Your task to perform on an android device: change timer sound Image 0: 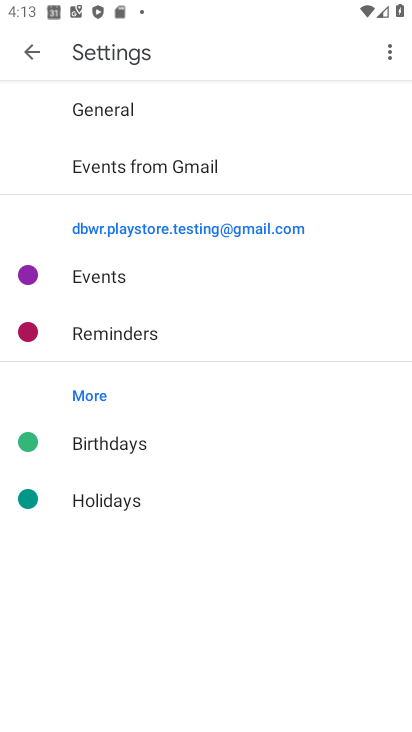
Step 0: click (35, 50)
Your task to perform on an android device: change timer sound Image 1: 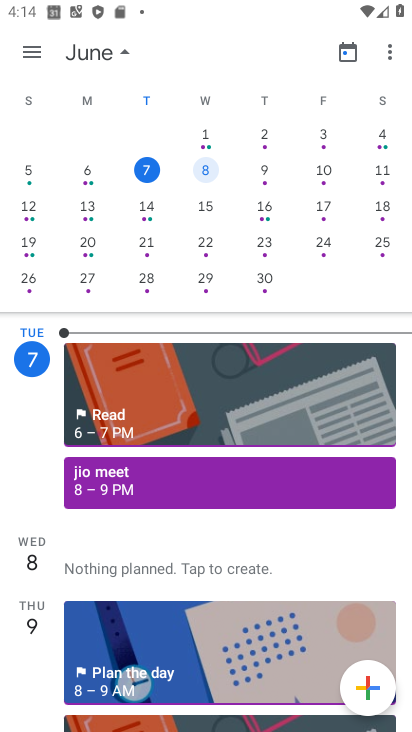
Step 1: press back button
Your task to perform on an android device: change timer sound Image 2: 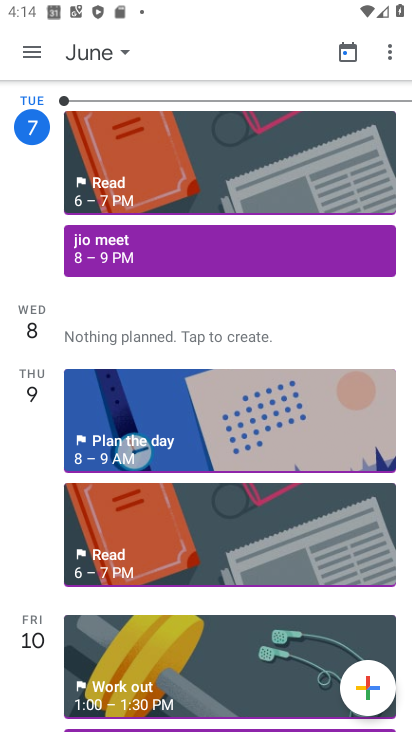
Step 2: press home button
Your task to perform on an android device: change timer sound Image 3: 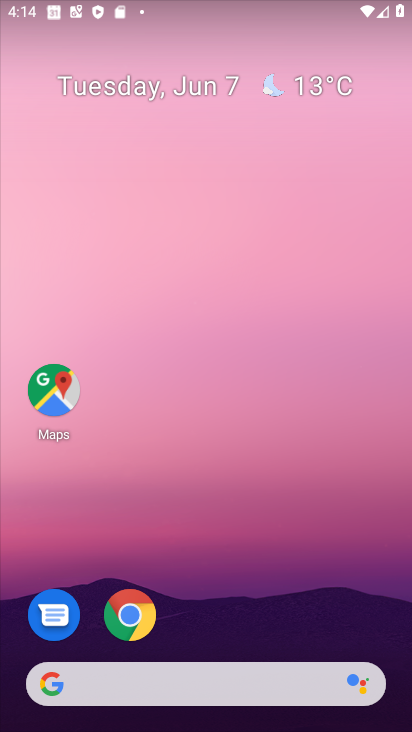
Step 3: drag from (149, 133) to (137, 95)
Your task to perform on an android device: change timer sound Image 4: 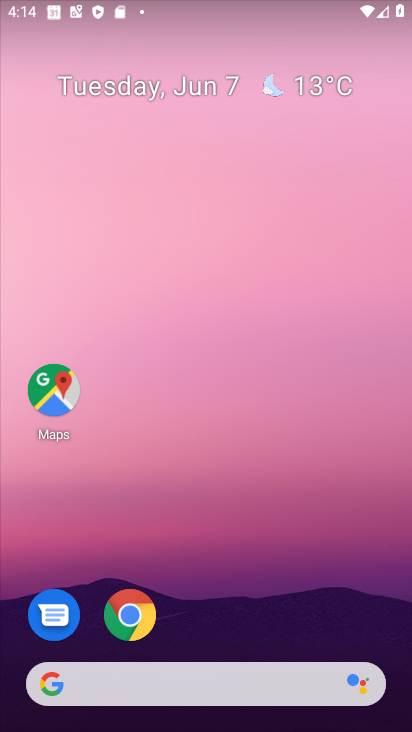
Step 4: drag from (243, 657) to (156, 96)
Your task to perform on an android device: change timer sound Image 5: 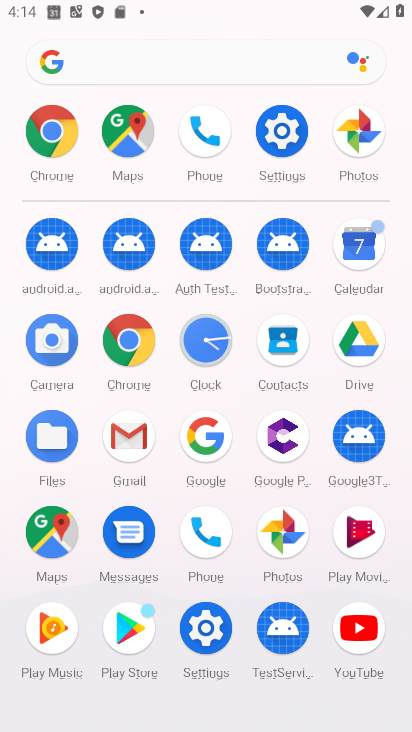
Step 5: click (205, 342)
Your task to perform on an android device: change timer sound Image 6: 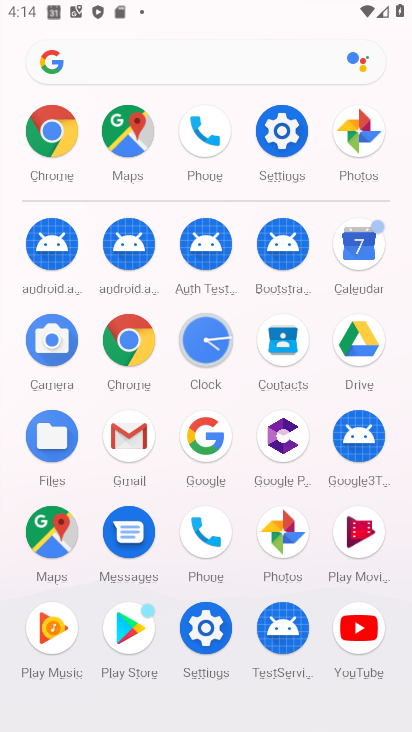
Step 6: click (205, 342)
Your task to perform on an android device: change timer sound Image 7: 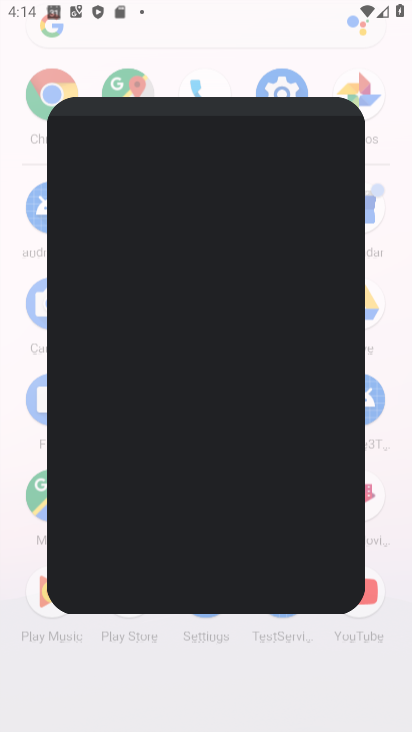
Step 7: click (209, 354)
Your task to perform on an android device: change timer sound Image 8: 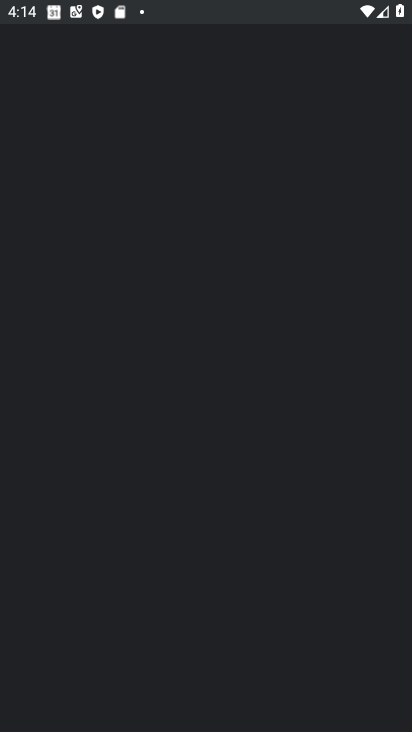
Step 8: click (209, 354)
Your task to perform on an android device: change timer sound Image 9: 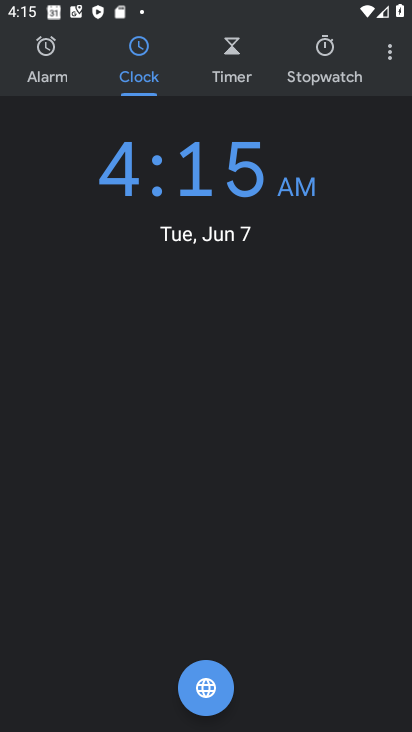
Step 9: click (227, 52)
Your task to perform on an android device: change timer sound Image 10: 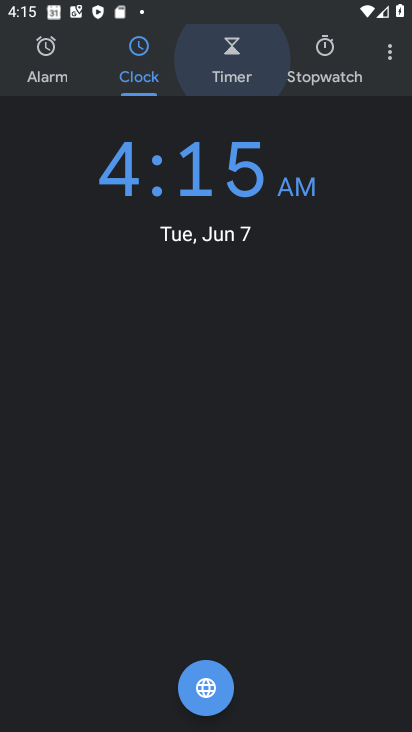
Step 10: click (227, 52)
Your task to perform on an android device: change timer sound Image 11: 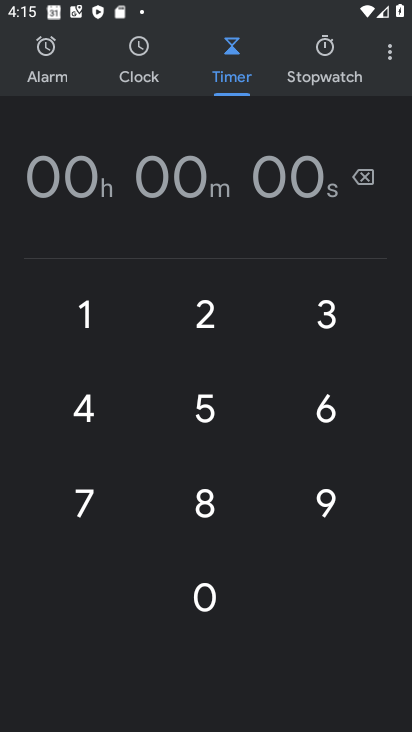
Step 11: click (203, 517)
Your task to perform on an android device: change timer sound Image 12: 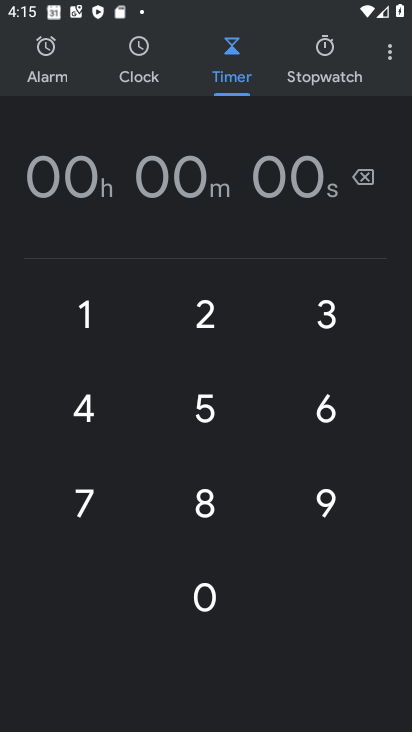
Step 12: click (203, 517)
Your task to perform on an android device: change timer sound Image 13: 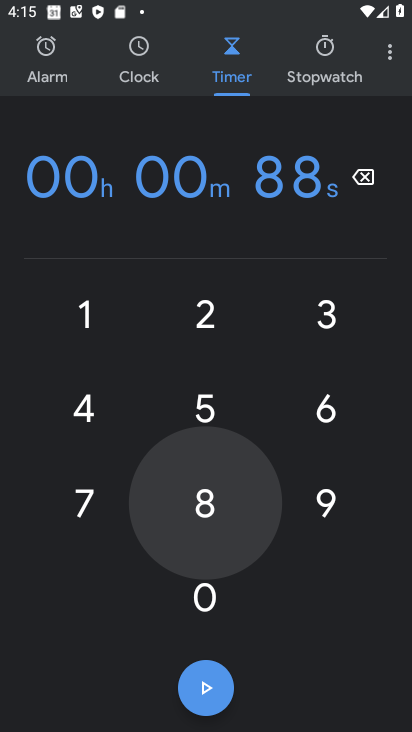
Step 13: click (203, 514)
Your task to perform on an android device: change timer sound Image 14: 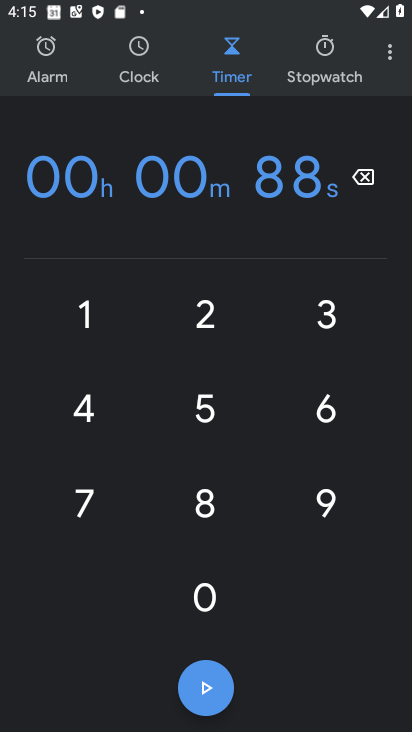
Step 14: click (205, 513)
Your task to perform on an android device: change timer sound Image 15: 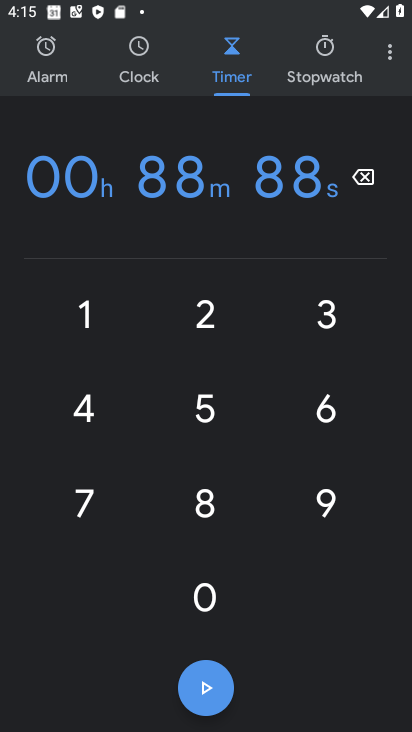
Step 15: click (208, 506)
Your task to perform on an android device: change timer sound Image 16: 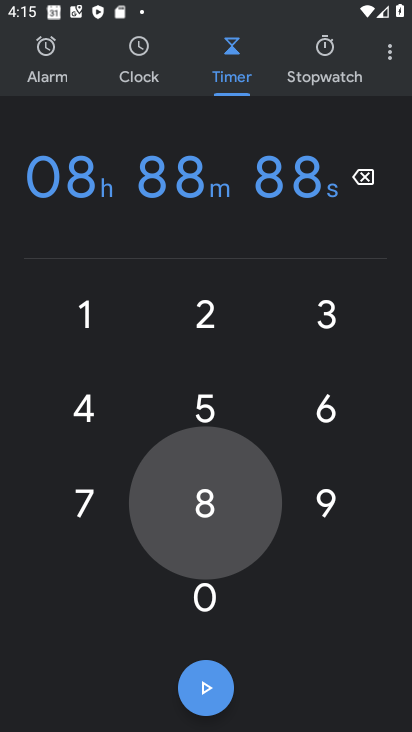
Step 16: click (207, 506)
Your task to perform on an android device: change timer sound Image 17: 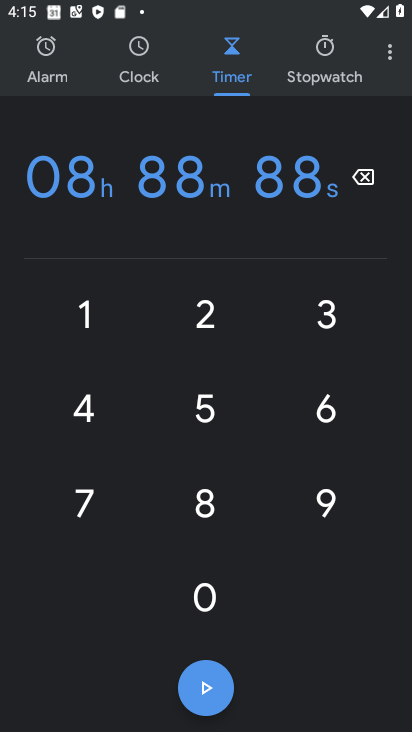
Step 17: click (207, 506)
Your task to perform on an android device: change timer sound Image 18: 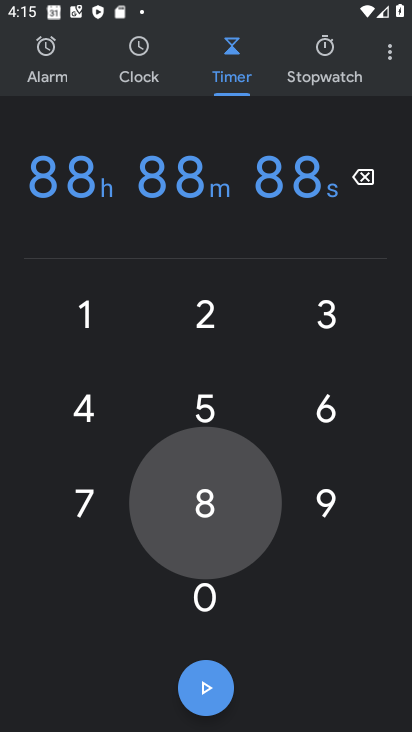
Step 18: click (207, 506)
Your task to perform on an android device: change timer sound Image 19: 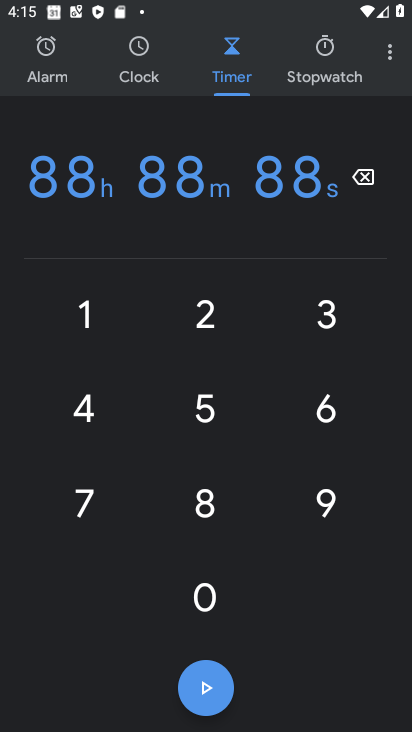
Step 19: click (208, 500)
Your task to perform on an android device: change timer sound Image 20: 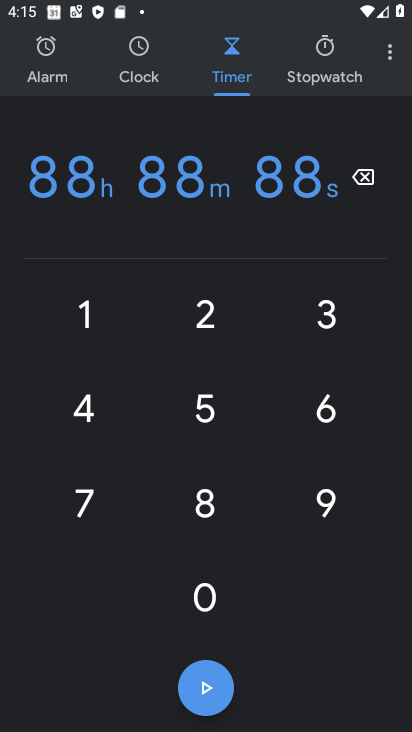
Step 20: click (210, 672)
Your task to perform on an android device: change timer sound Image 21: 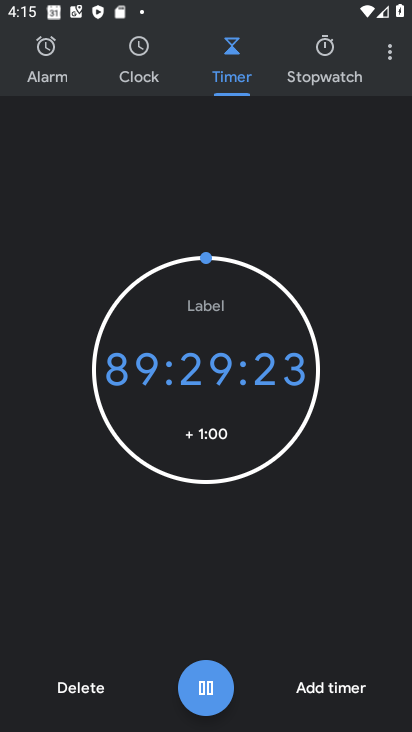
Step 21: click (210, 687)
Your task to perform on an android device: change timer sound Image 22: 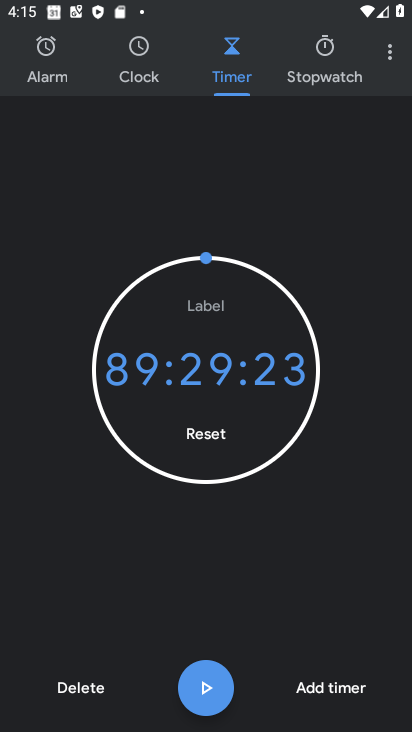
Step 22: task complete